Your task to perform on an android device: Open calendar and show me the first week of next month Image 0: 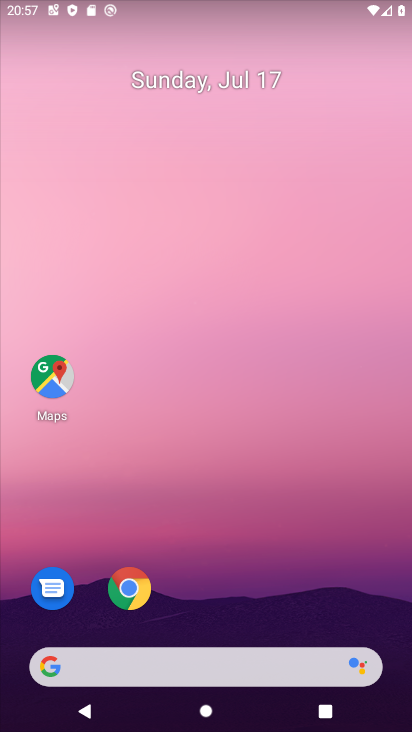
Step 0: press home button
Your task to perform on an android device: Open calendar and show me the first week of next month Image 1: 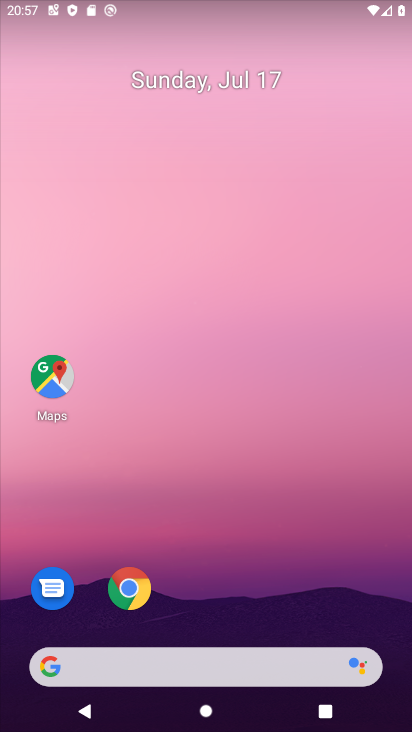
Step 1: drag from (203, 540) to (260, 0)
Your task to perform on an android device: Open calendar and show me the first week of next month Image 2: 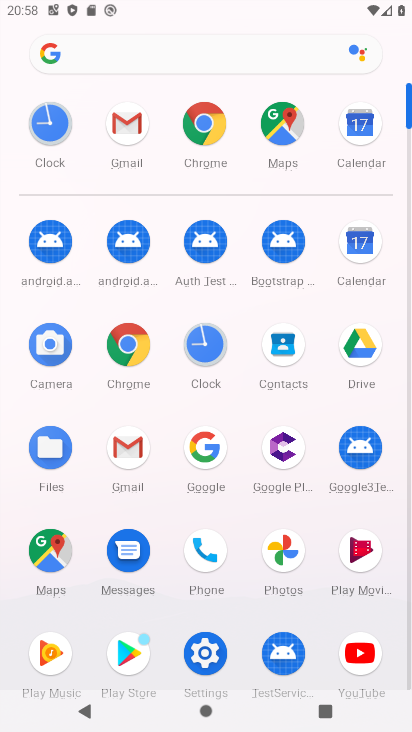
Step 2: click (348, 264)
Your task to perform on an android device: Open calendar and show me the first week of next month Image 3: 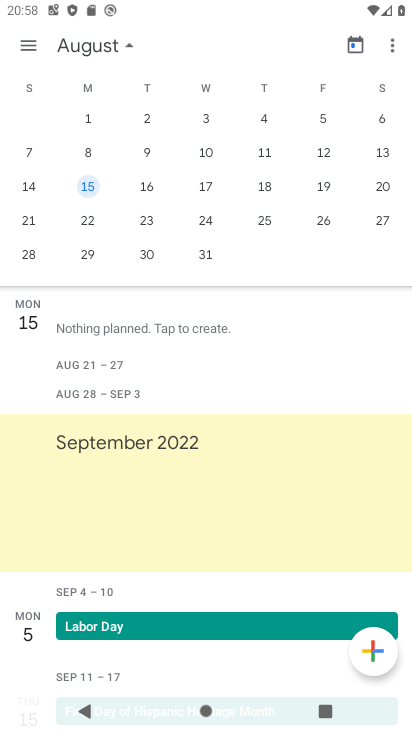
Step 3: click (79, 125)
Your task to perform on an android device: Open calendar and show me the first week of next month Image 4: 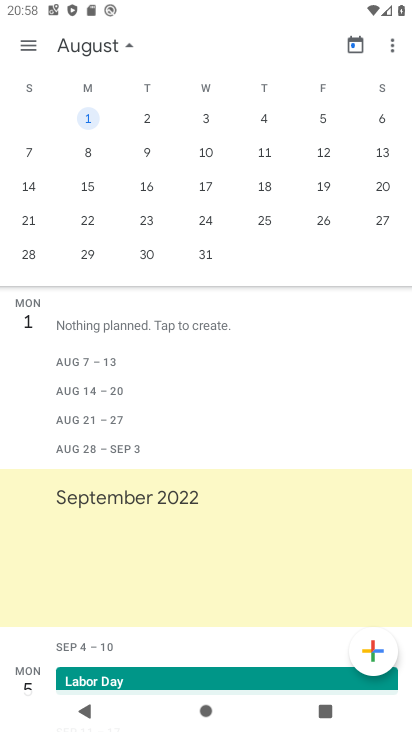
Step 4: task complete